Your task to perform on an android device: set an alarm Image 0: 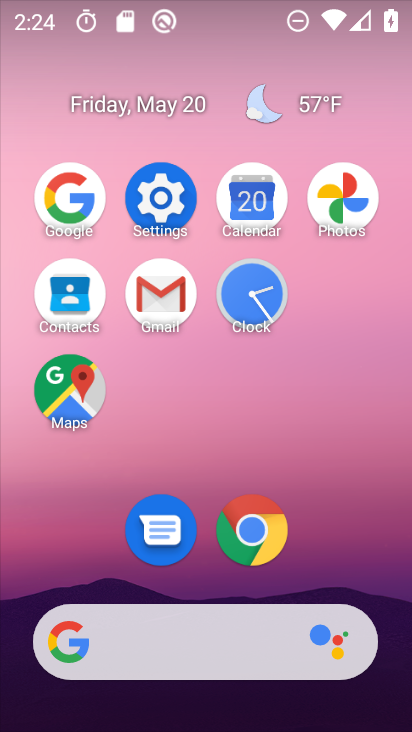
Step 0: click (247, 311)
Your task to perform on an android device: set an alarm Image 1: 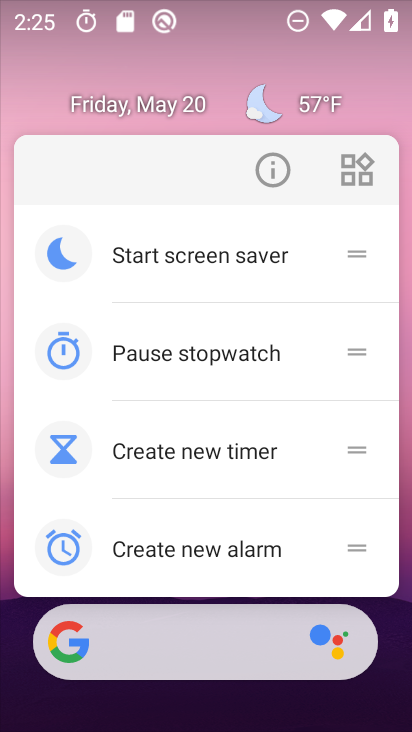
Step 1: click (201, 536)
Your task to perform on an android device: set an alarm Image 2: 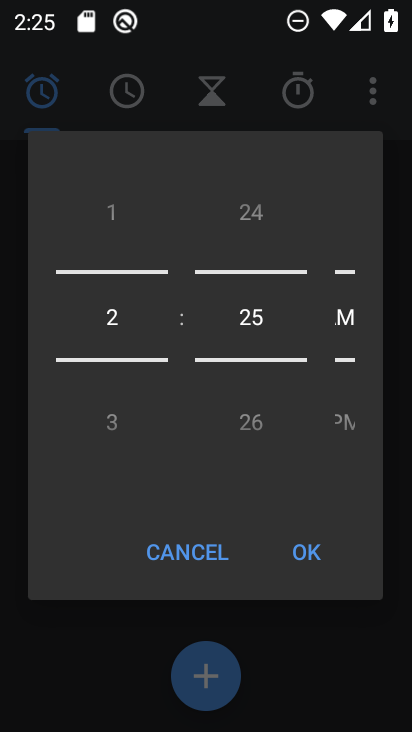
Step 2: click (303, 533)
Your task to perform on an android device: set an alarm Image 3: 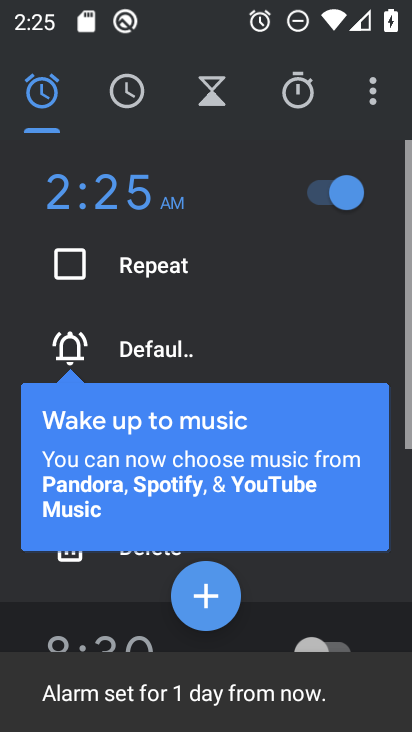
Step 3: task complete